Your task to perform on an android device: Open Reddit.com Image 0: 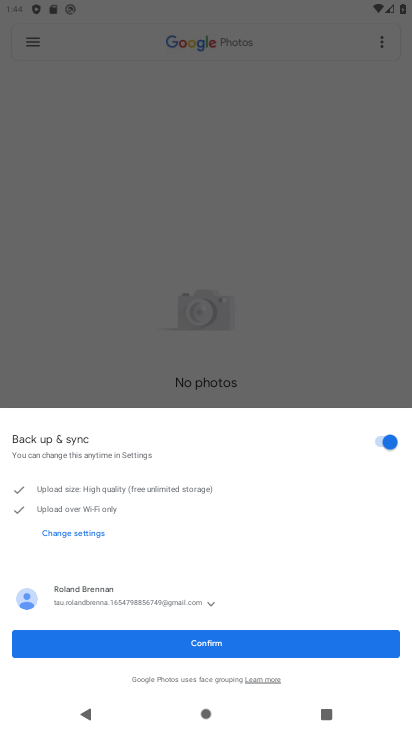
Step 0: press home button
Your task to perform on an android device: Open Reddit.com Image 1: 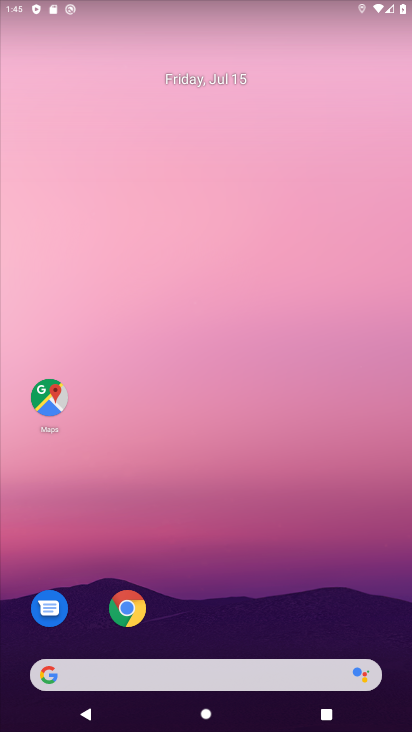
Step 1: click (134, 606)
Your task to perform on an android device: Open Reddit.com Image 2: 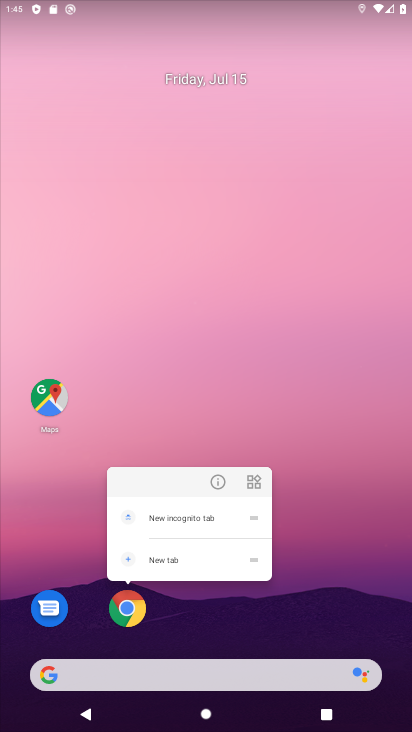
Step 2: click (143, 603)
Your task to perform on an android device: Open Reddit.com Image 3: 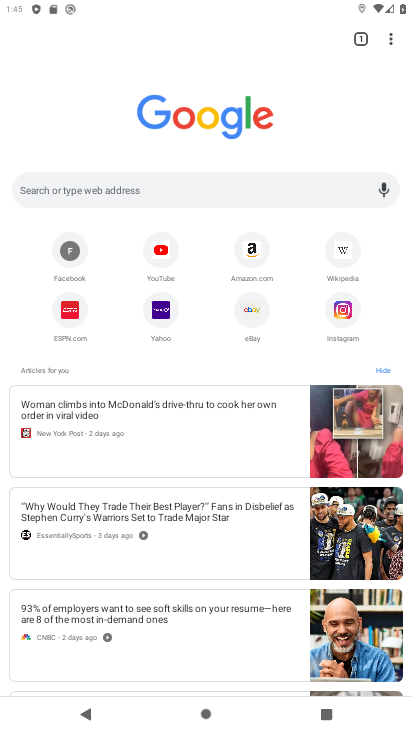
Step 3: click (145, 179)
Your task to perform on an android device: Open Reddit.com Image 4: 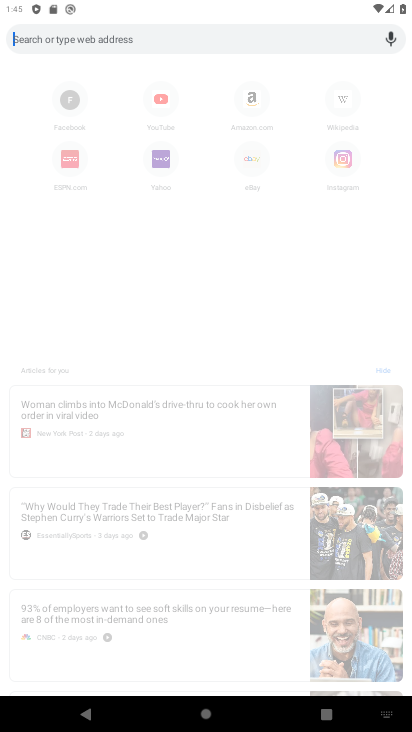
Step 4: type "reddit.com"
Your task to perform on an android device: Open Reddit.com Image 5: 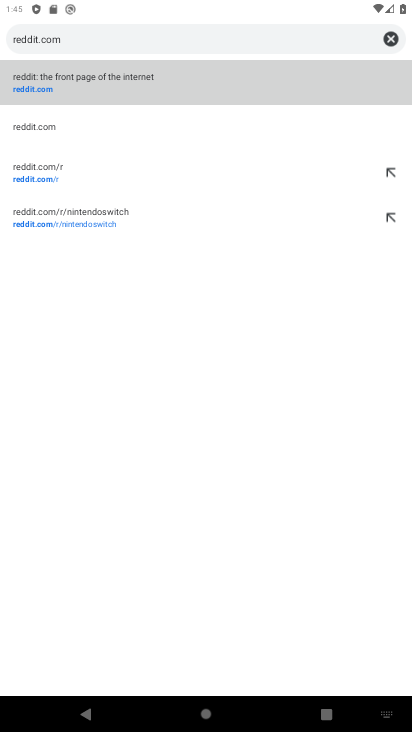
Step 5: click (59, 96)
Your task to perform on an android device: Open Reddit.com Image 6: 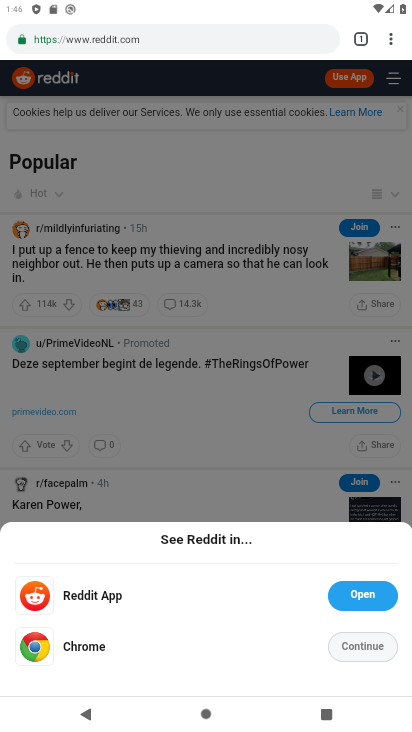
Step 6: task complete